Your task to perform on an android device: View the shopping cart on target. Search for bose soundsport free on target, select the first entry, add it to the cart, then select checkout. Image 0: 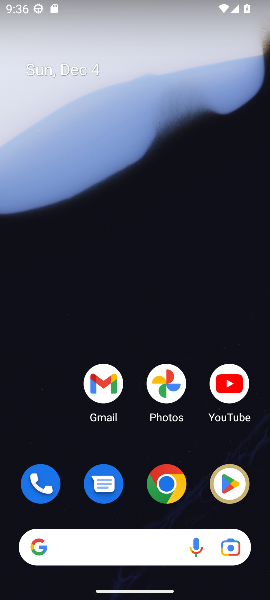
Step 0: click (168, 488)
Your task to perform on an android device: View the shopping cart on target. Search for bose soundsport free on target, select the first entry, add it to the cart, then select checkout. Image 1: 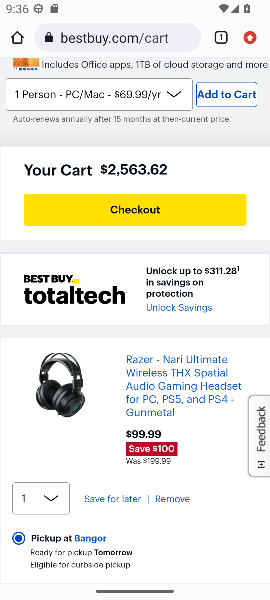
Step 1: click (116, 36)
Your task to perform on an android device: View the shopping cart on target. Search for bose soundsport free on target, select the first entry, add it to the cart, then select checkout. Image 2: 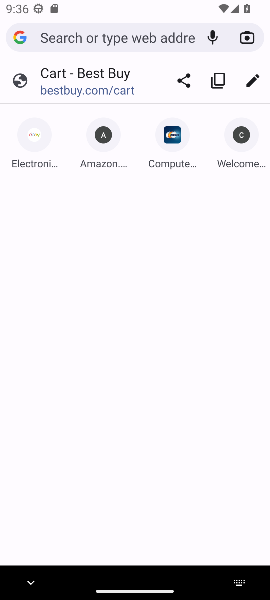
Step 2: type "target.com"
Your task to perform on an android device: View the shopping cart on target. Search for bose soundsport free on target, select the first entry, add it to the cart, then select checkout. Image 3: 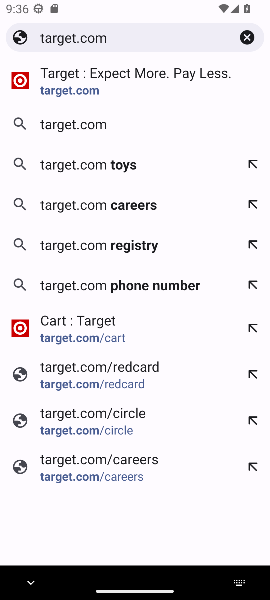
Step 3: click (49, 90)
Your task to perform on an android device: View the shopping cart on target. Search for bose soundsport free on target, select the first entry, add it to the cart, then select checkout. Image 4: 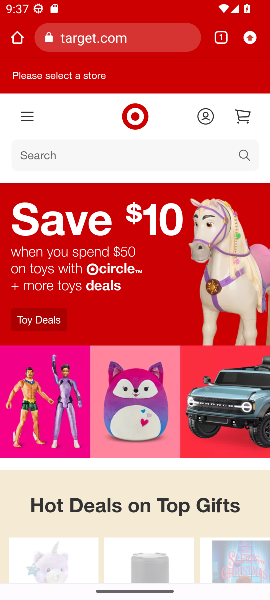
Step 4: click (243, 121)
Your task to perform on an android device: View the shopping cart on target. Search for bose soundsport free on target, select the first entry, add it to the cart, then select checkout. Image 5: 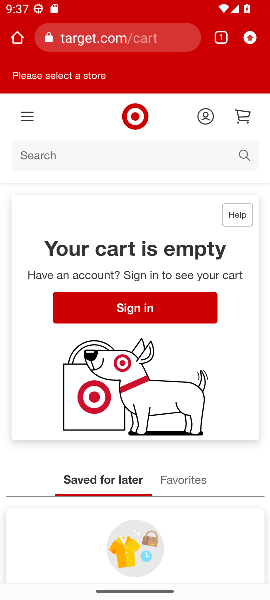
Step 5: click (38, 161)
Your task to perform on an android device: View the shopping cart on target. Search for bose soundsport free on target, select the first entry, add it to the cart, then select checkout. Image 6: 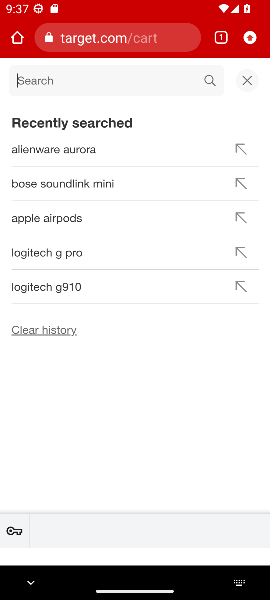
Step 6: type "bose soundsport free "
Your task to perform on an android device: View the shopping cart on target. Search for bose soundsport free on target, select the first entry, add it to the cart, then select checkout. Image 7: 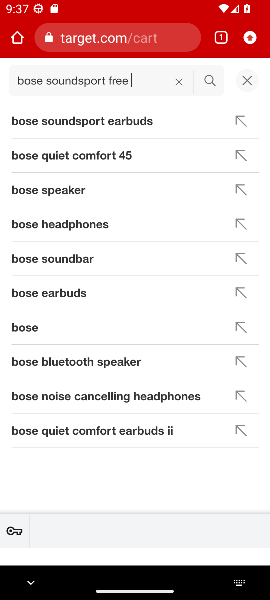
Step 7: click (206, 82)
Your task to perform on an android device: View the shopping cart on target. Search for bose soundsport free on target, select the first entry, add it to the cart, then select checkout. Image 8: 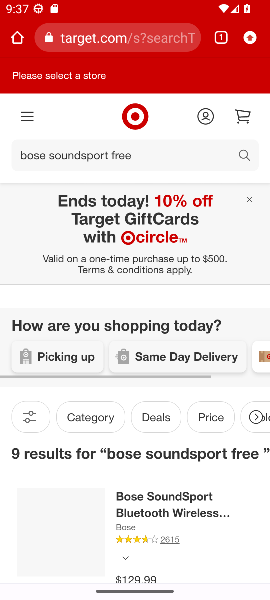
Step 8: task complete